Your task to perform on an android device: stop showing notifications on the lock screen Image 0: 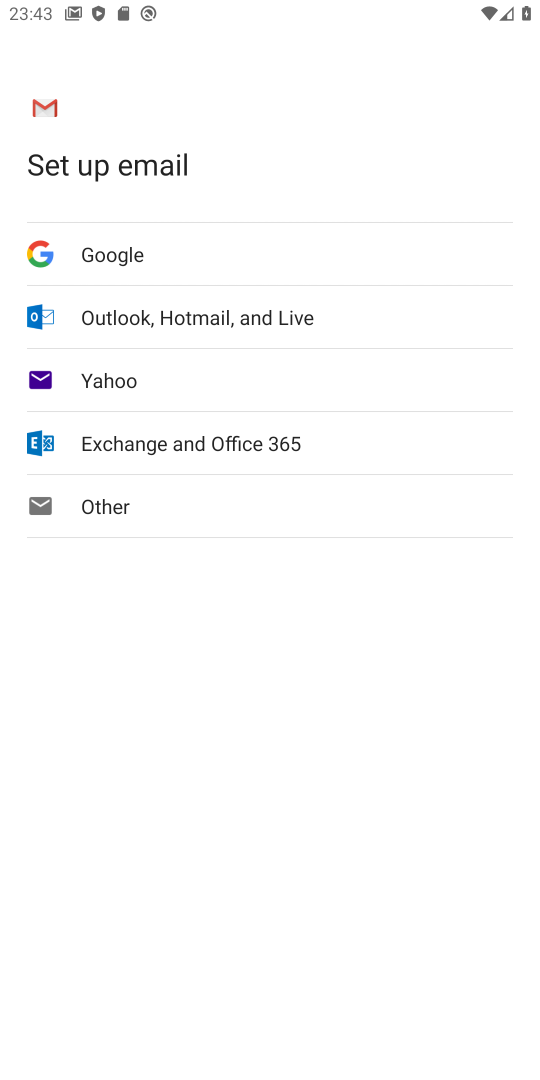
Step 0: press back button
Your task to perform on an android device: stop showing notifications on the lock screen Image 1: 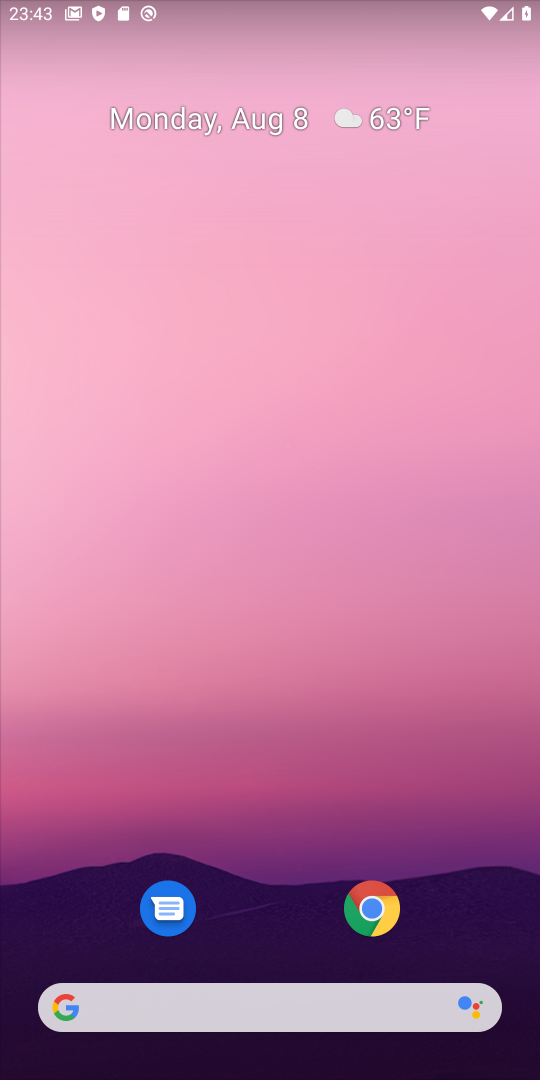
Step 1: drag from (446, 948) to (311, 178)
Your task to perform on an android device: stop showing notifications on the lock screen Image 2: 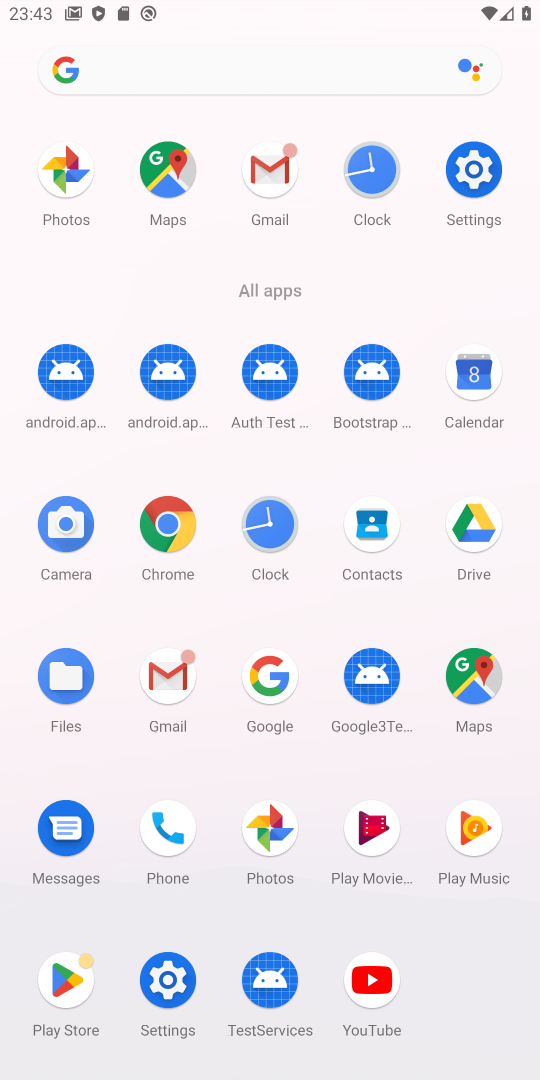
Step 2: click (489, 177)
Your task to perform on an android device: stop showing notifications on the lock screen Image 3: 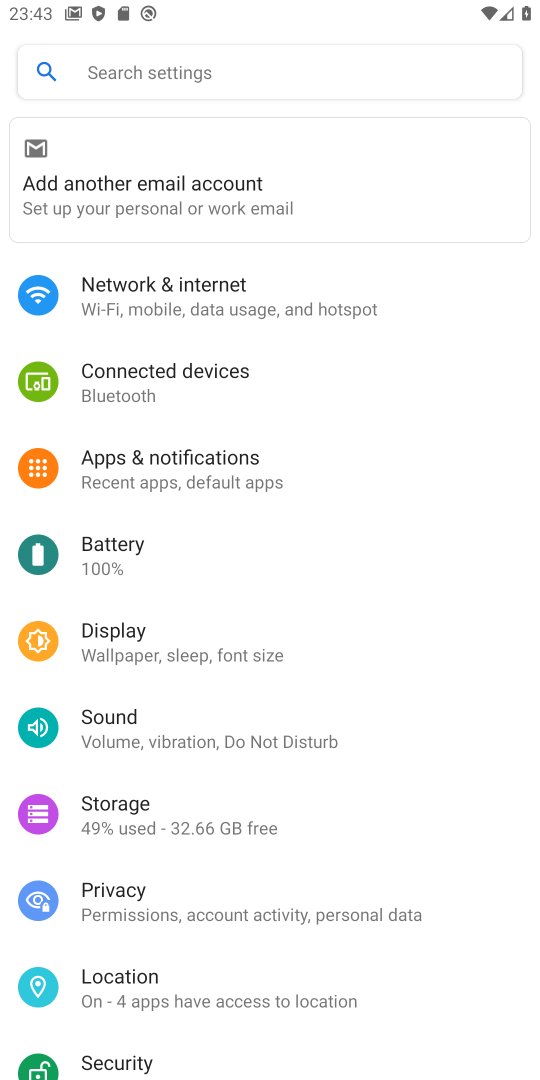
Step 3: click (306, 473)
Your task to perform on an android device: stop showing notifications on the lock screen Image 4: 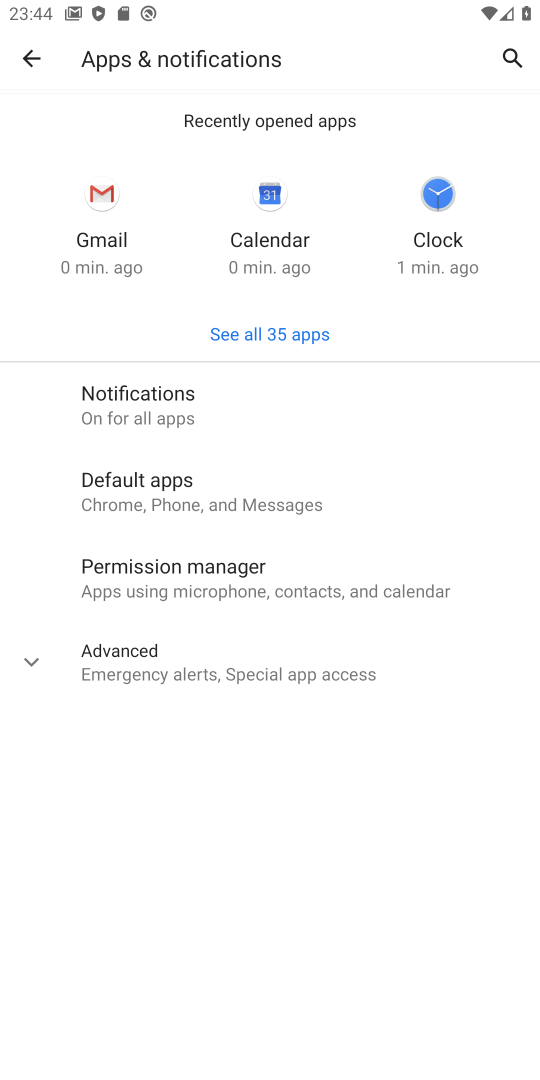
Step 4: click (236, 402)
Your task to perform on an android device: stop showing notifications on the lock screen Image 5: 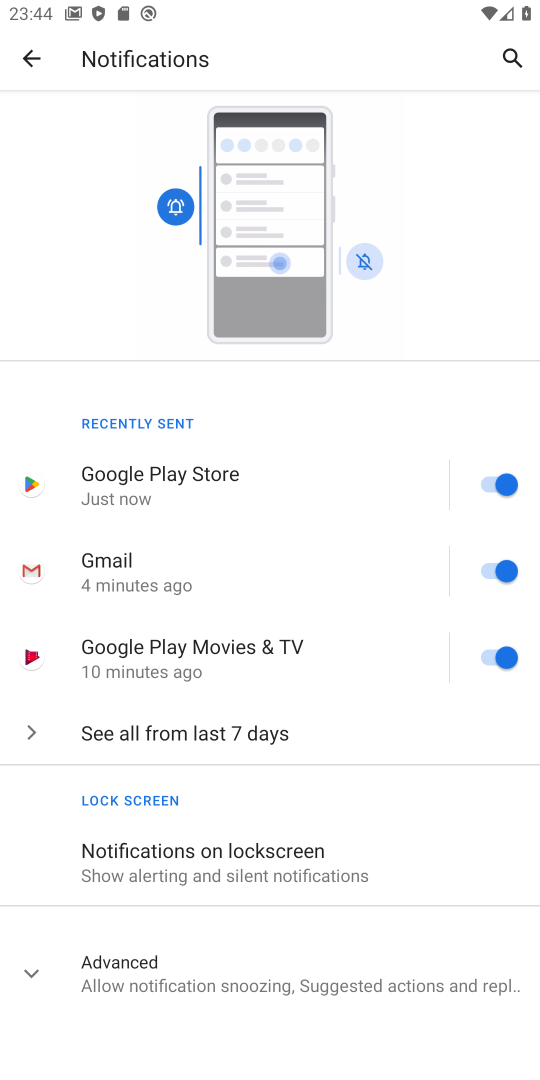
Step 5: click (290, 868)
Your task to perform on an android device: stop showing notifications on the lock screen Image 6: 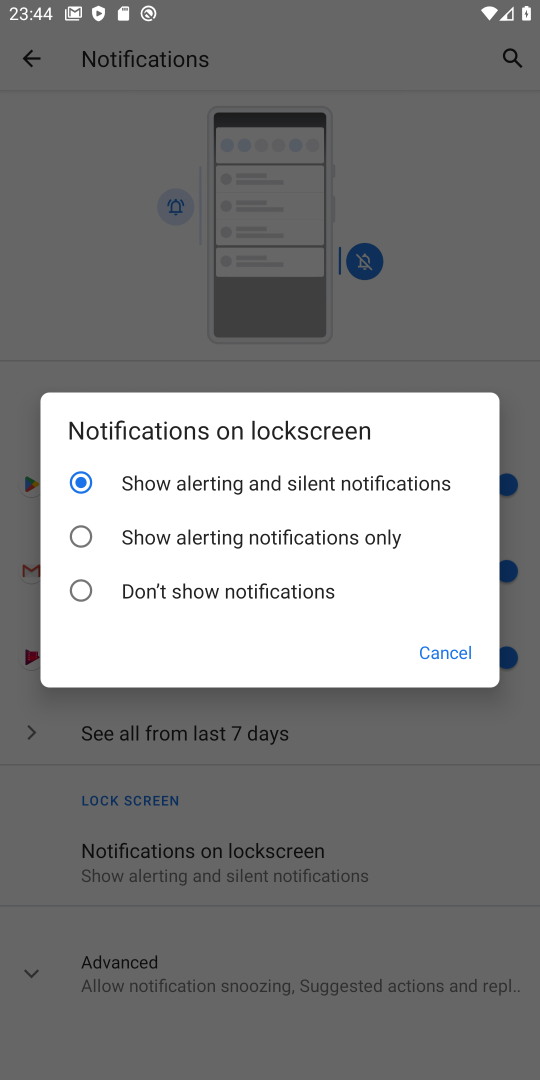
Step 6: click (235, 600)
Your task to perform on an android device: stop showing notifications on the lock screen Image 7: 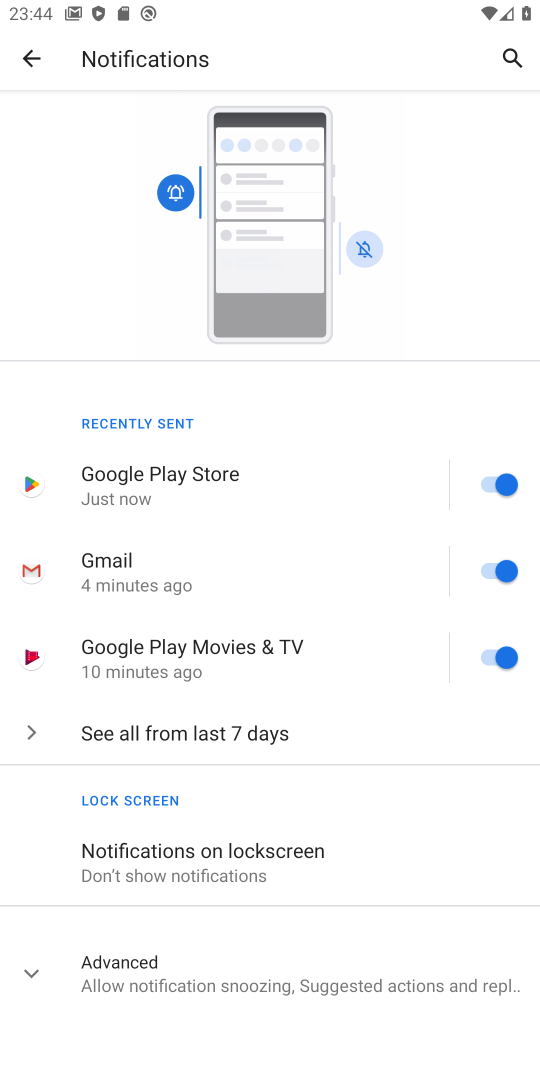
Step 7: task complete